Your task to perform on an android device: turn off notifications in google photos Image 0: 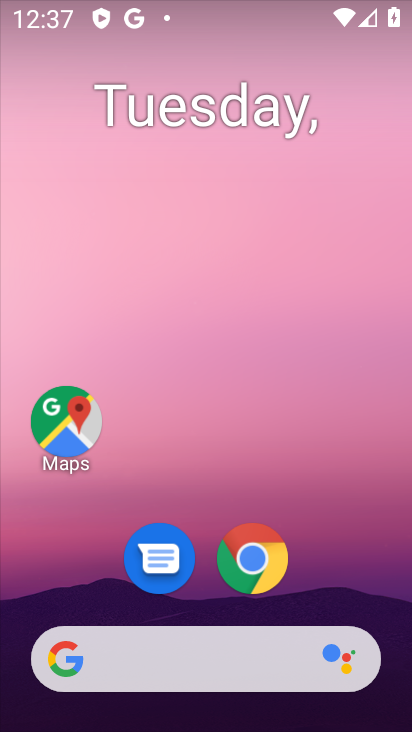
Step 0: drag from (375, 595) to (387, 229)
Your task to perform on an android device: turn off notifications in google photos Image 1: 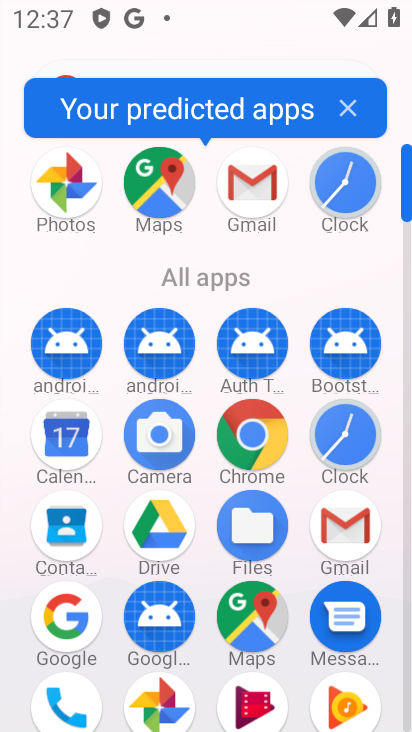
Step 1: drag from (203, 559) to (206, 392)
Your task to perform on an android device: turn off notifications in google photos Image 2: 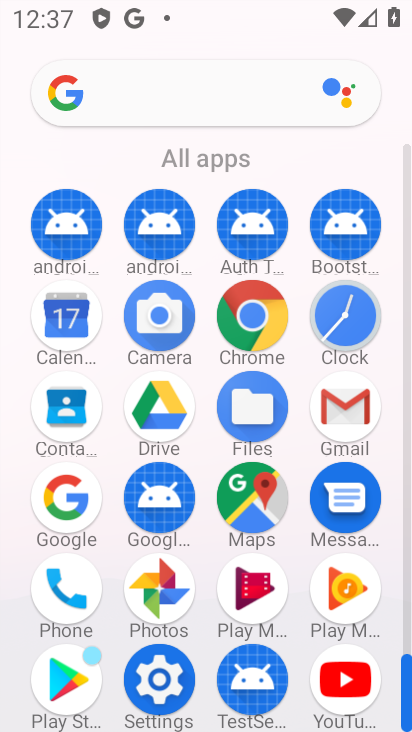
Step 2: click (177, 597)
Your task to perform on an android device: turn off notifications in google photos Image 3: 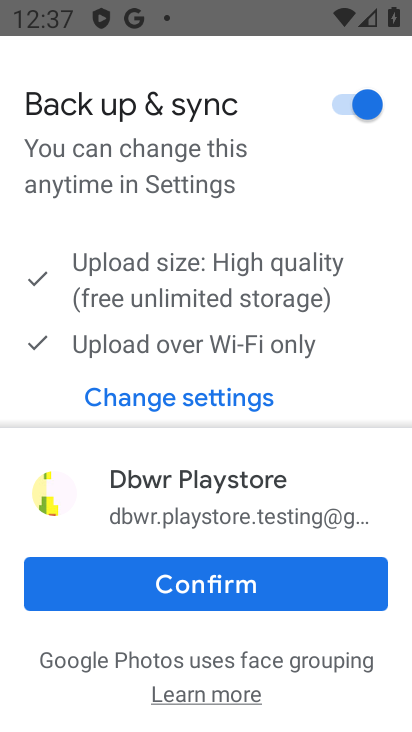
Step 3: click (250, 583)
Your task to perform on an android device: turn off notifications in google photos Image 4: 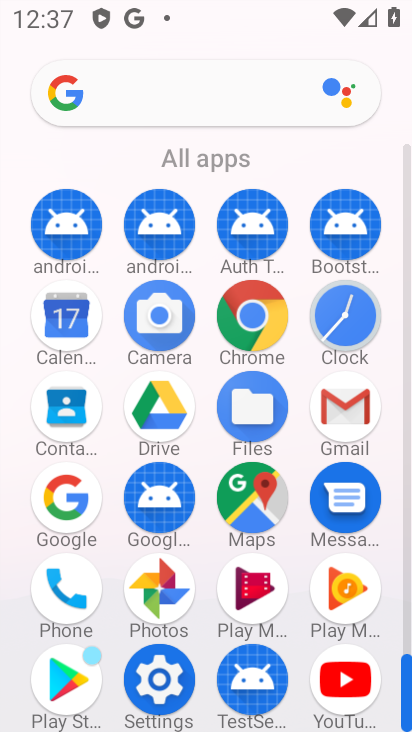
Step 4: click (181, 582)
Your task to perform on an android device: turn off notifications in google photos Image 5: 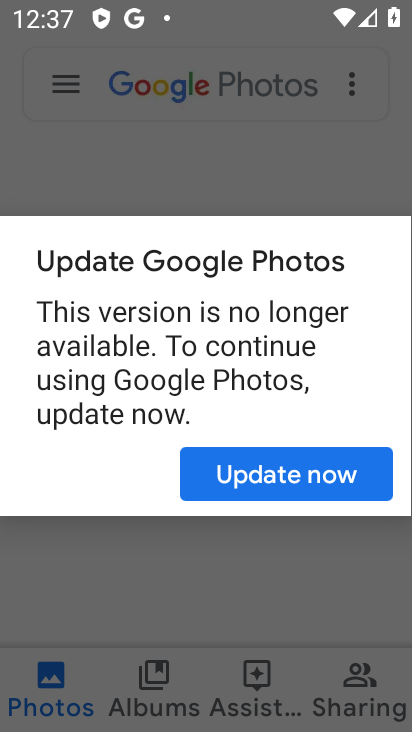
Step 5: click (298, 486)
Your task to perform on an android device: turn off notifications in google photos Image 6: 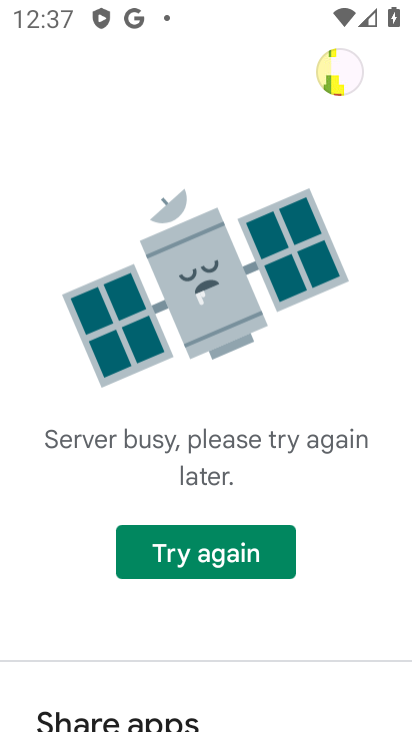
Step 6: click (273, 556)
Your task to perform on an android device: turn off notifications in google photos Image 7: 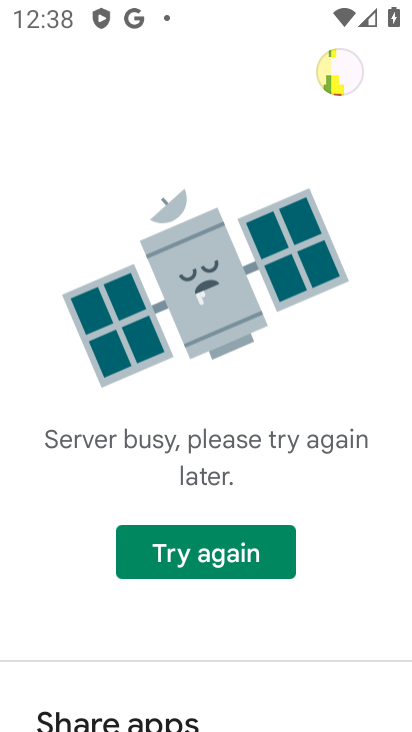
Step 7: task complete